Your task to perform on an android device: Is it going to rain this weekend? Image 0: 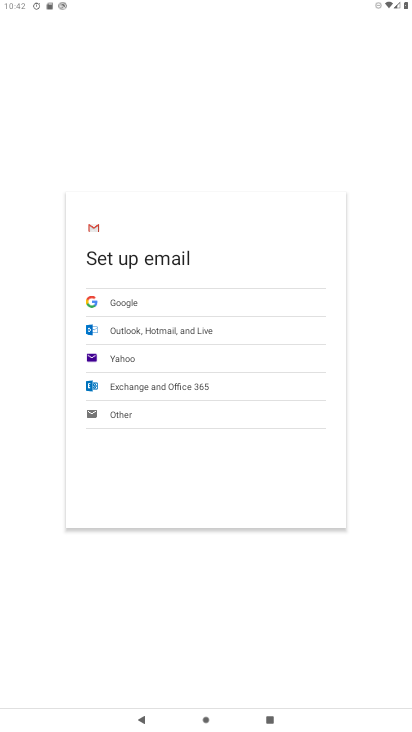
Step 0: press home button
Your task to perform on an android device: Is it going to rain this weekend? Image 1: 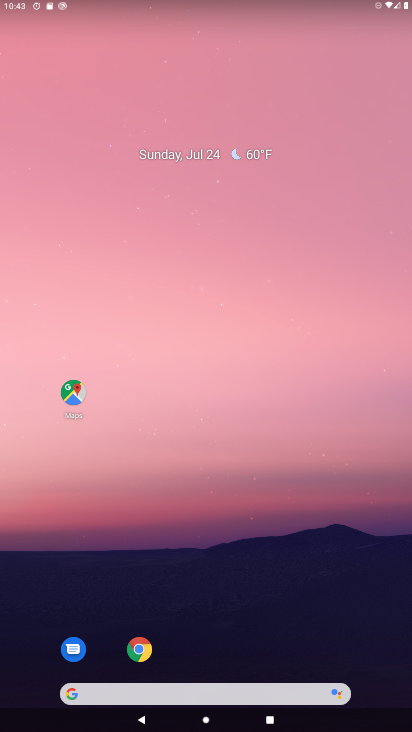
Step 1: drag from (284, 346) to (231, 1)
Your task to perform on an android device: Is it going to rain this weekend? Image 2: 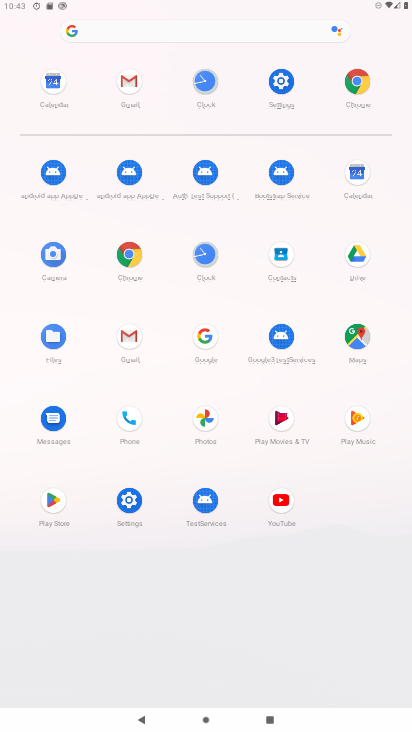
Step 2: click (355, 82)
Your task to perform on an android device: Is it going to rain this weekend? Image 3: 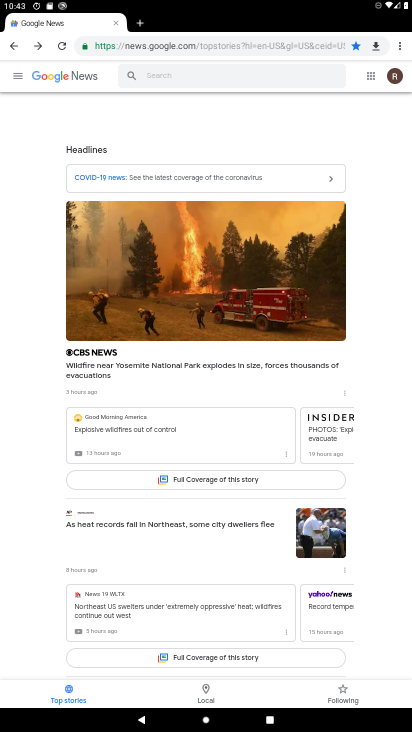
Step 3: click (268, 38)
Your task to perform on an android device: Is it going to rain this weekend? Image 4: 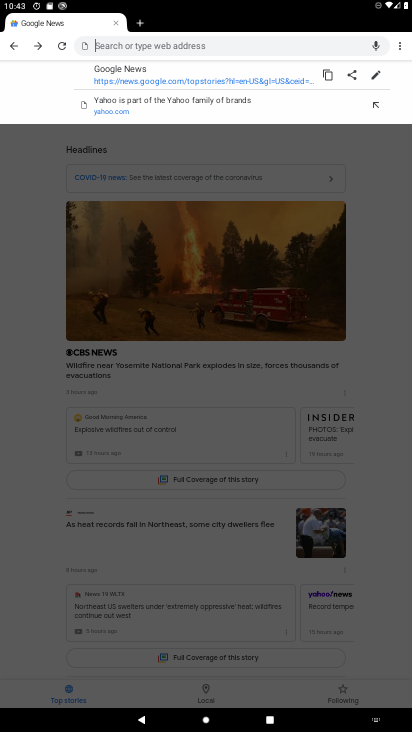
Step 4: type "news"
Your task to perform on an android device: Is it going to rain this weekend? Image 5: 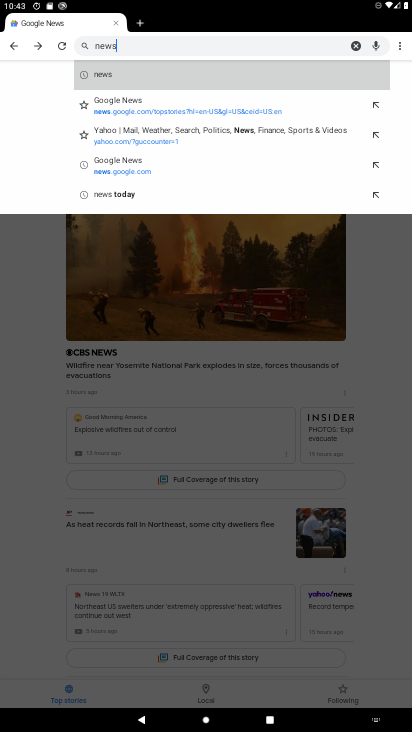
Step 5: click (99, 76)
Your task to perform on an android device: Is it going to rain this weekend? Image 6: 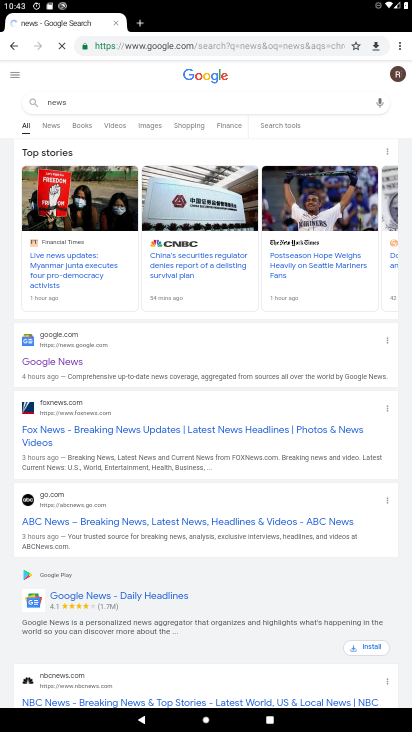
Step 6: click (63, 367)
Your task to perform on an android device: Is it going to rain this weekend? Image 7: 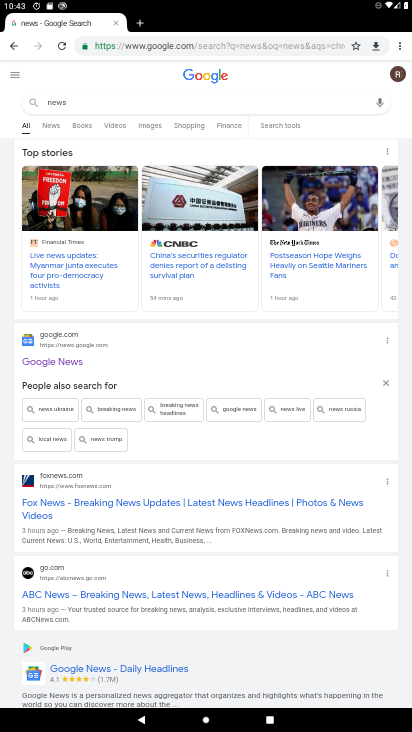
Step 7: click (65, 364)
Your task to perform on an android device: Is it going to rain this weekend? Image 8: 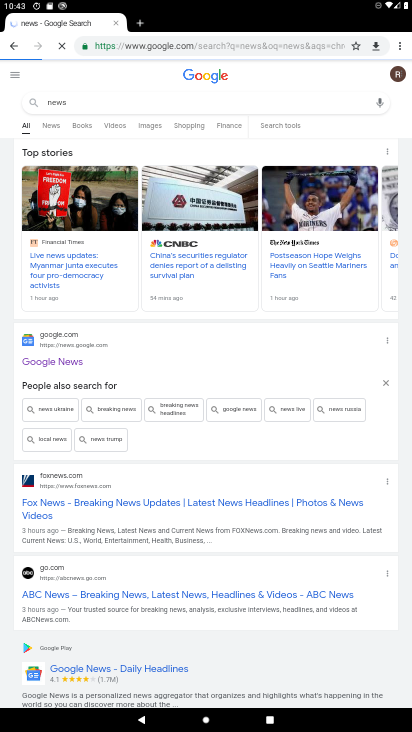
Step 8: click (65, 364)
Your task to perform on an android device: Is it going to rain this weekend? Image 9: 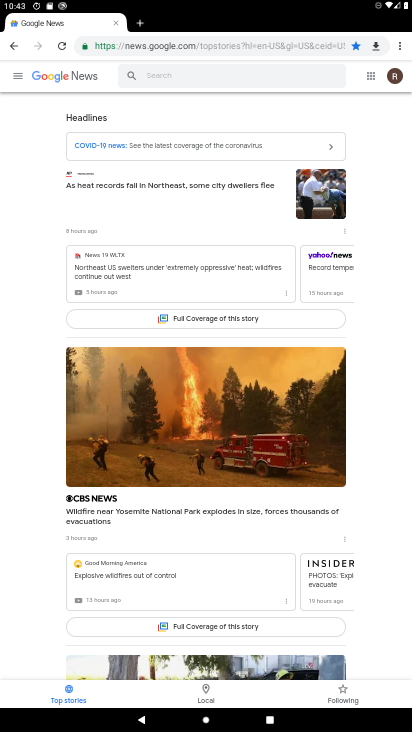
Step 9: task complete